Your task to perform on an android device: Do I have any events this weekend? Image 0: 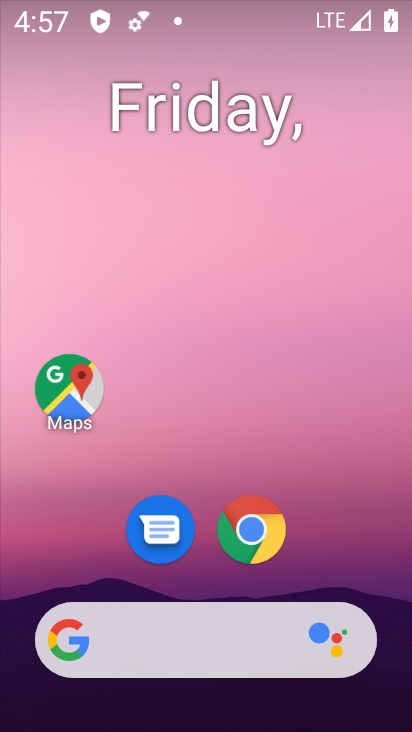
Step 0: drag from (343, 537) to (230, 18)
Your task to perform on an android device: Do I have any events this weekend? Image 1: 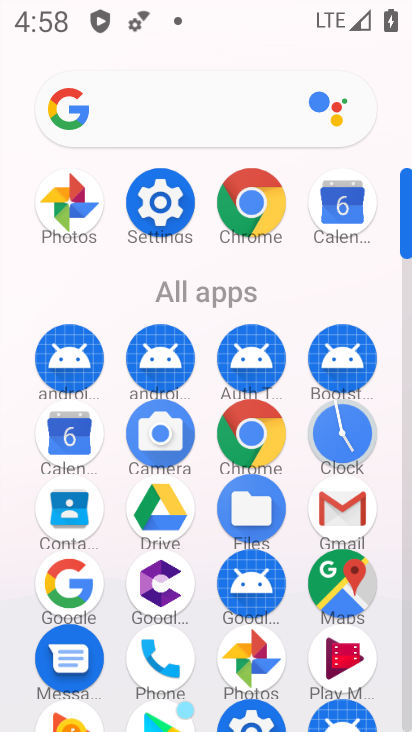
Step 1: click (71, 416)
Your task to perform on an android device: Do I have any events this weekend? Image 2: 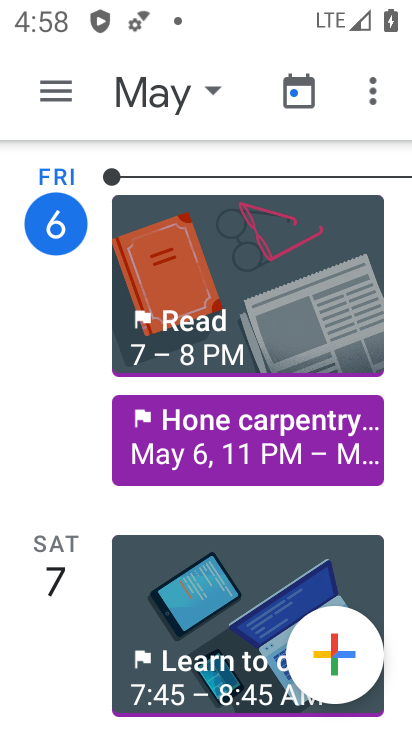
Step 2: click (48, 77)
Your task to perform on an android device: Do I have any events this weekend? Image 3: 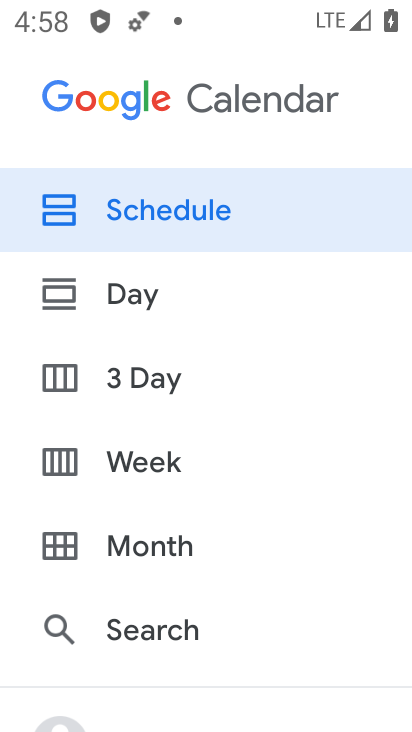
Step 3: click (175, 456)
Your task to perform on an android device: Do I have any events this weekend? Image 4: 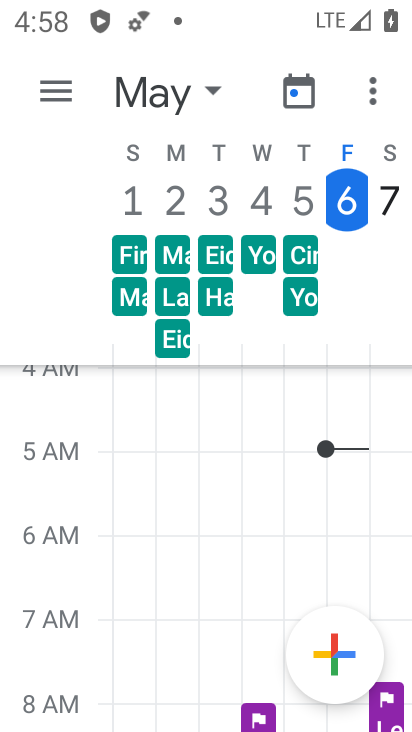
Step 4: task complete